Your task to perform on an android device: When is my next appointment? Image 0: 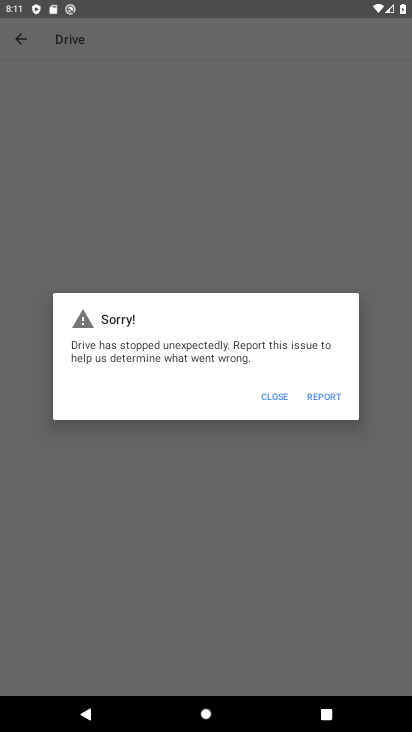
Step 0: click (51, 410)
Your task to perform on an android device: When is my next appointment? Image 1: 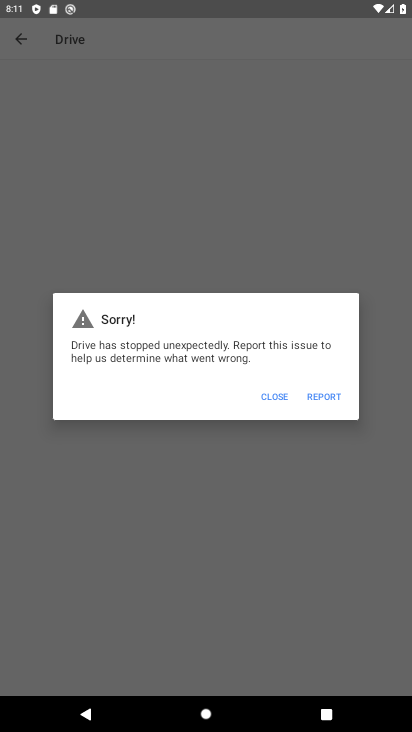
Step 1: press home button
Your task to perform on an android device: When is my next appointment? Image 2: 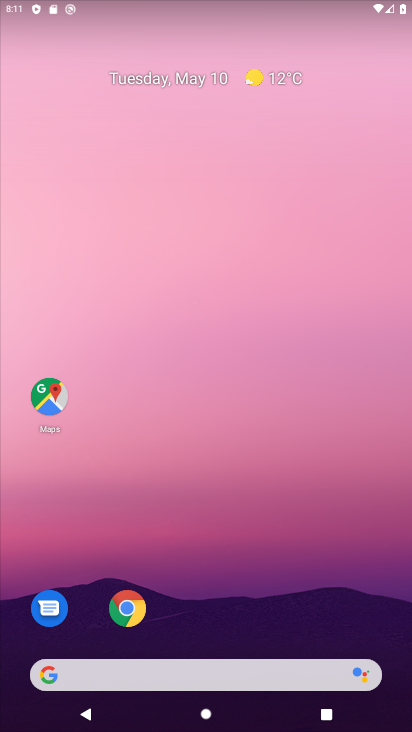
Step 2: drag from (179, 662) to (161, 42)
Your task to perform on an android device: When is my next appointment? Image 3: 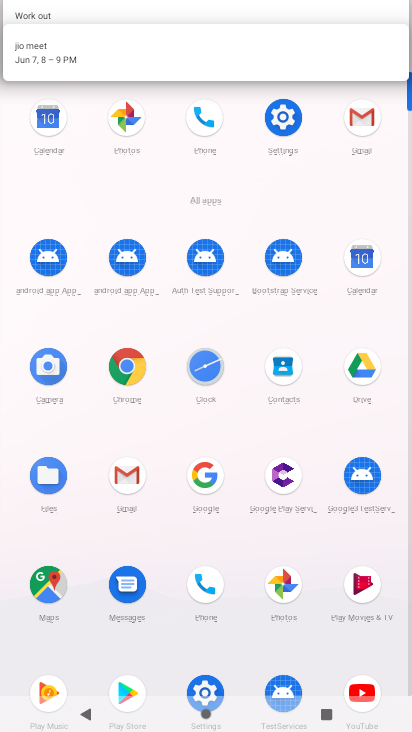
Step 3: click (360, 254)
Your task to perform on an android device: When is my next appointment? Image 4: 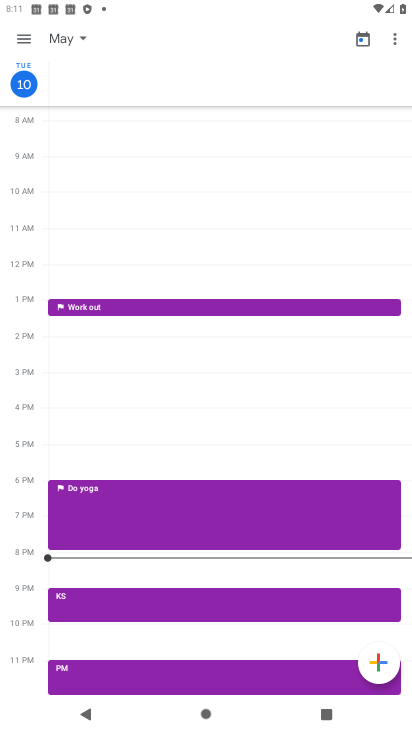
Step 4: click (33, 39)
Your task to perform on an android device: When is my next appointment? Image 5: 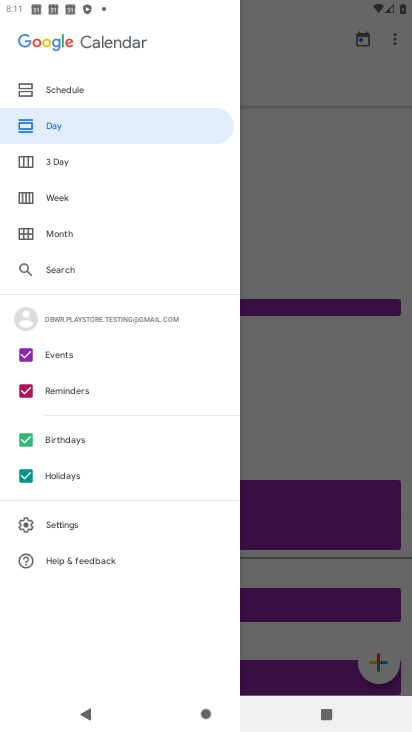
Step 5: click (81, 83)
Your task to perform on an android device: When is my next appointment? Image 6: 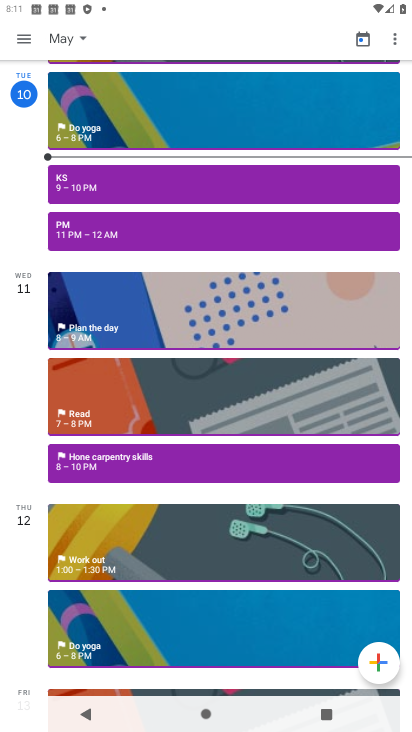
Step 6: task complete